Your task to perform on an android device: add a label to a message in the gmail app Image 0: 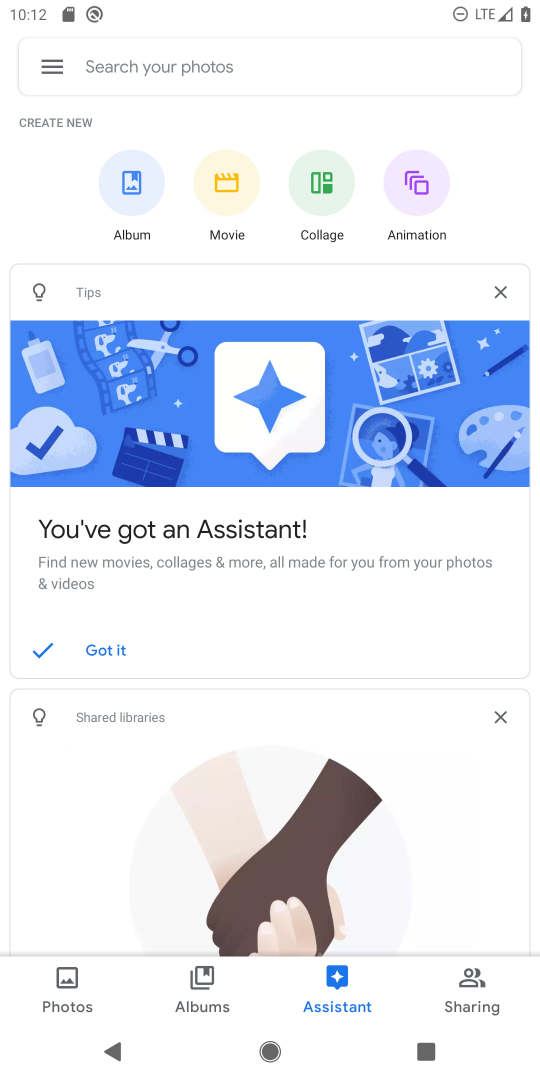
Step 0: press home button
Your task to perform on an android device: add a label to a message in the gmail app Image 1: 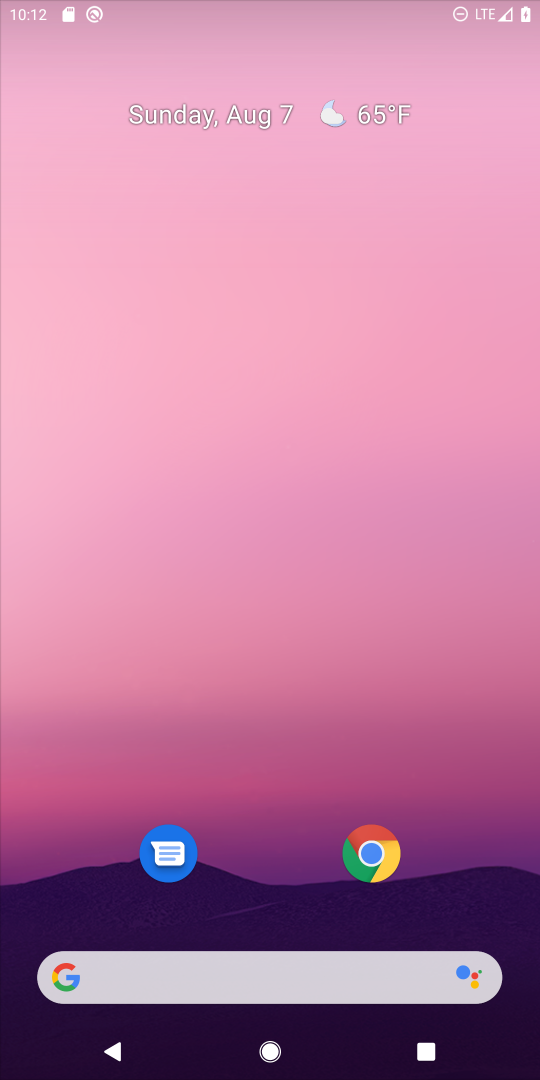
Step 1: drag from (202, 979) to (292, 268)
Your task to perform on an android device: add a label to a message in the gmail app Image 2: 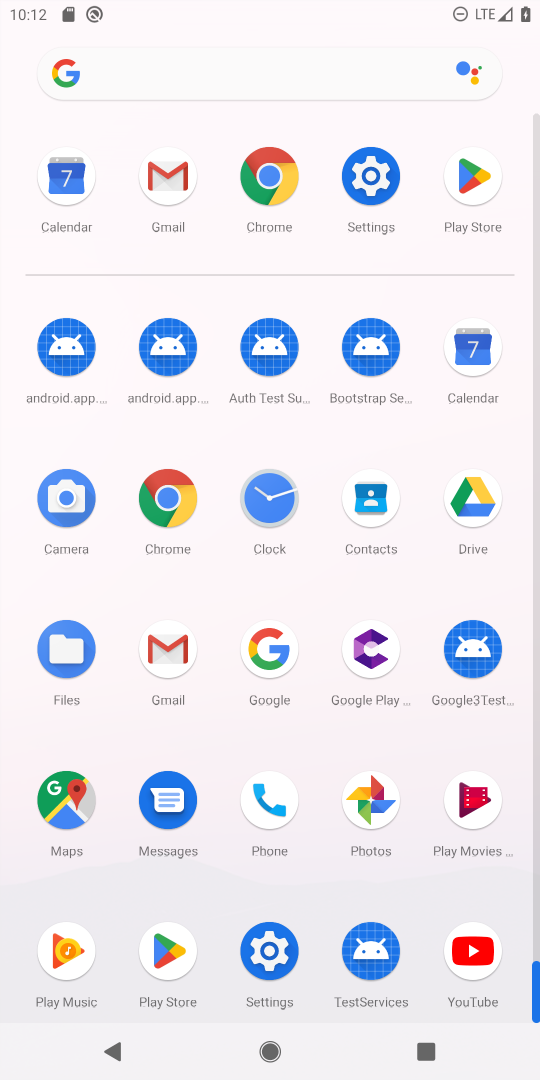
Step 2: click (158, 168)
Your task to perform on an android device: add a label to a message in the gmail app Image 3: 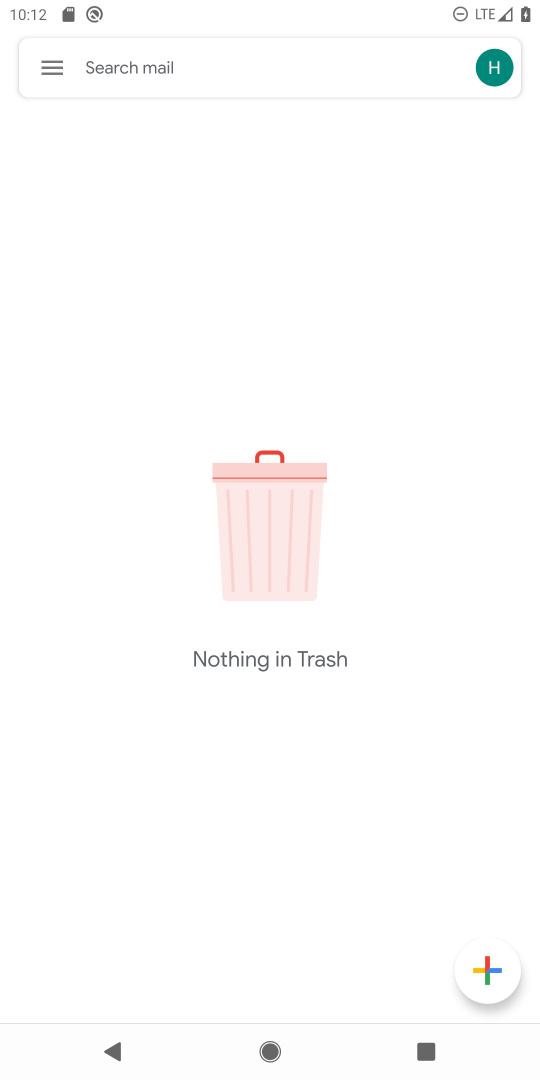
Step 3: click (56, 67)
Your task to perform on an android device: add a label to a message in the gmail app Image 4: 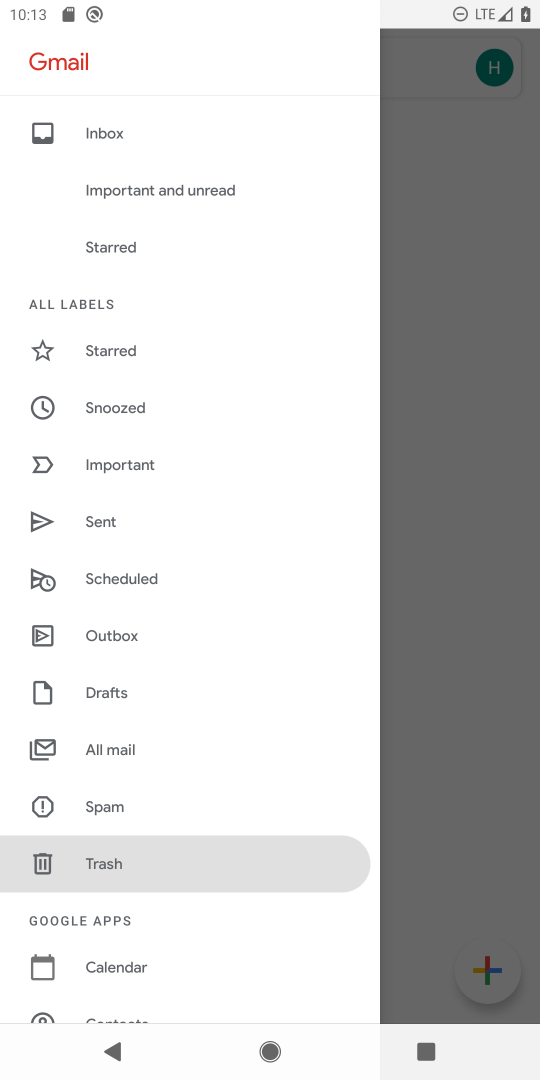
Step 4: drag from (169, 790) to (288, 222)
Your task to perform on an android device: add a label to a message in the gmail app Image 5: 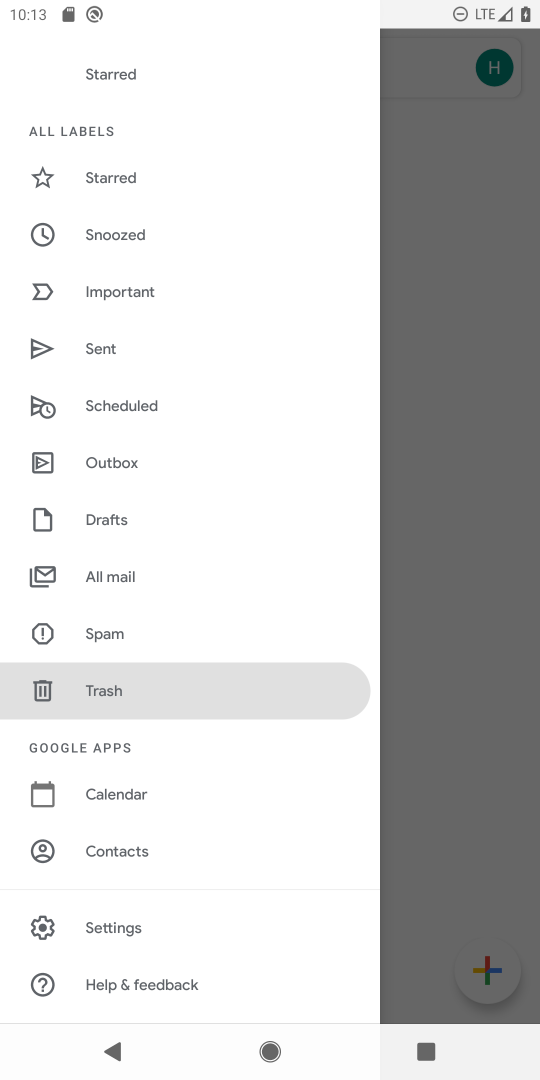
Step 5: drag from (168, 311) to (153, 916)
Your task to perform on an android device: add a label to a message in the gmail app Image 6: 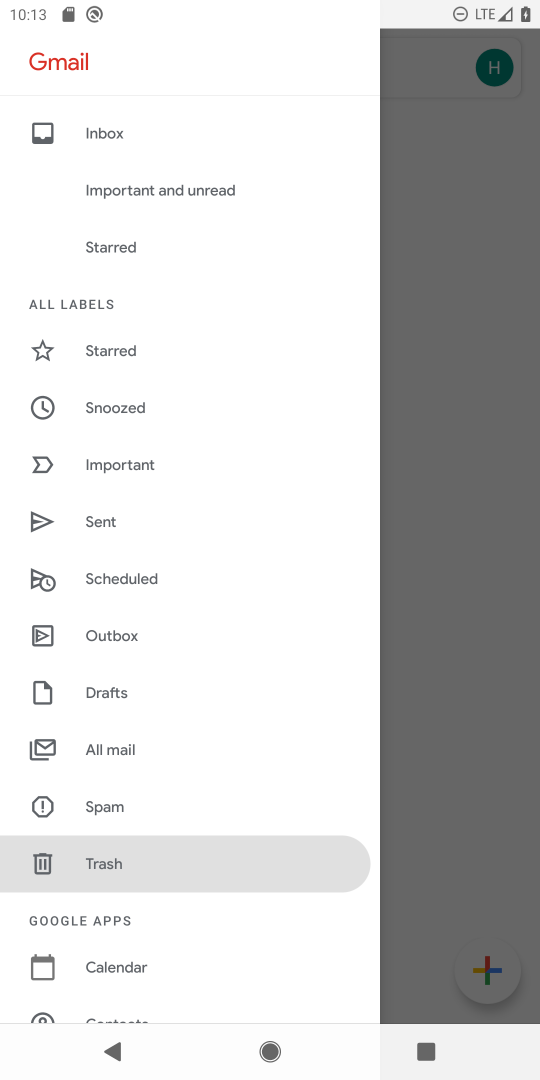
Step 6: click (129, 747)
Your task to perform on an android device: add a label to a message in the gmail app Image 7: 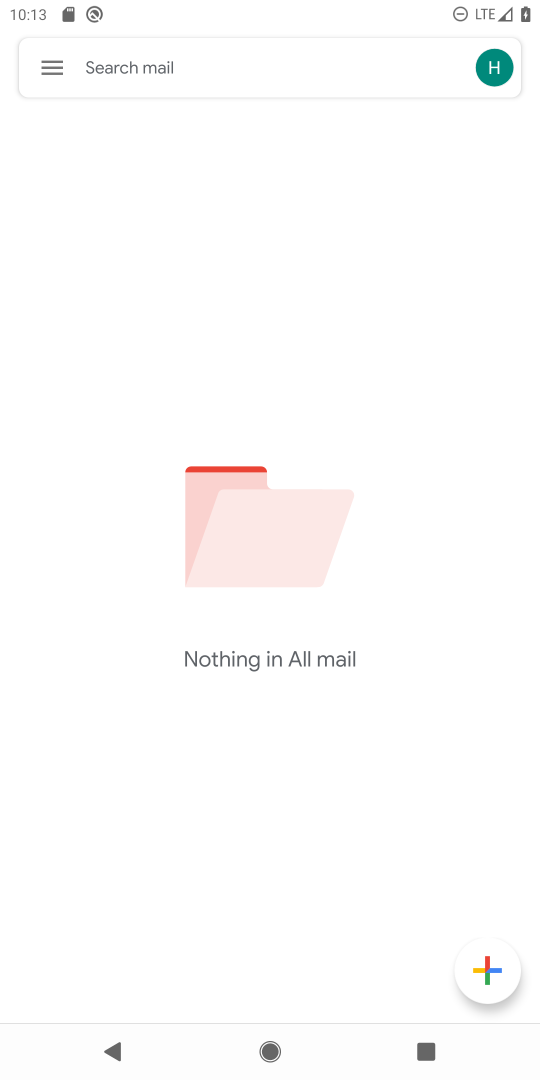
Step 7: click (51, 73)
Your task to perform on an android device: add a label to a message in the gmail app Image 8: 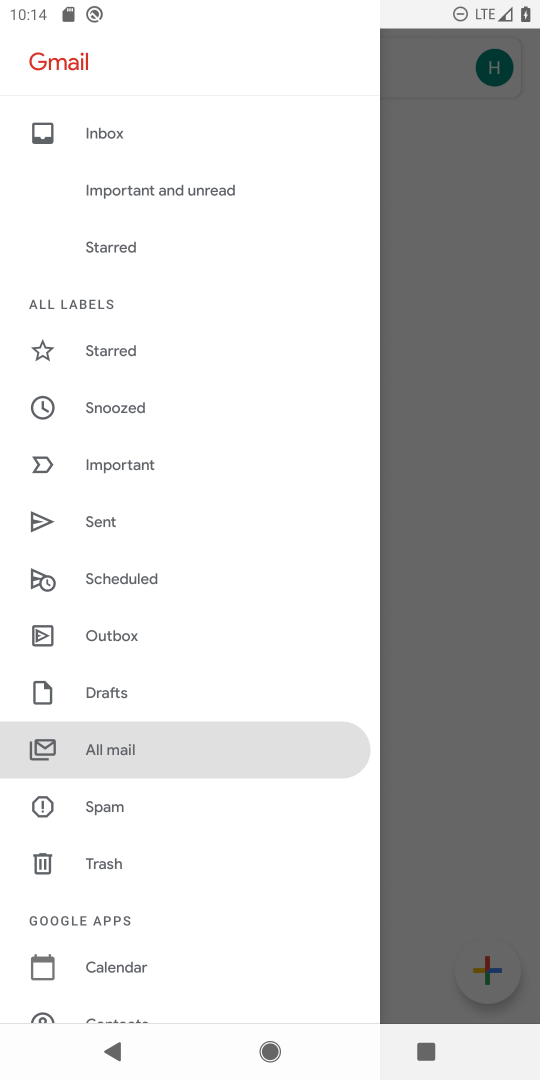
Step 8: drag from (161, 940) to (245, 186)
Your task to perform on an android device: add a label to a message in the gmail app Image 9: 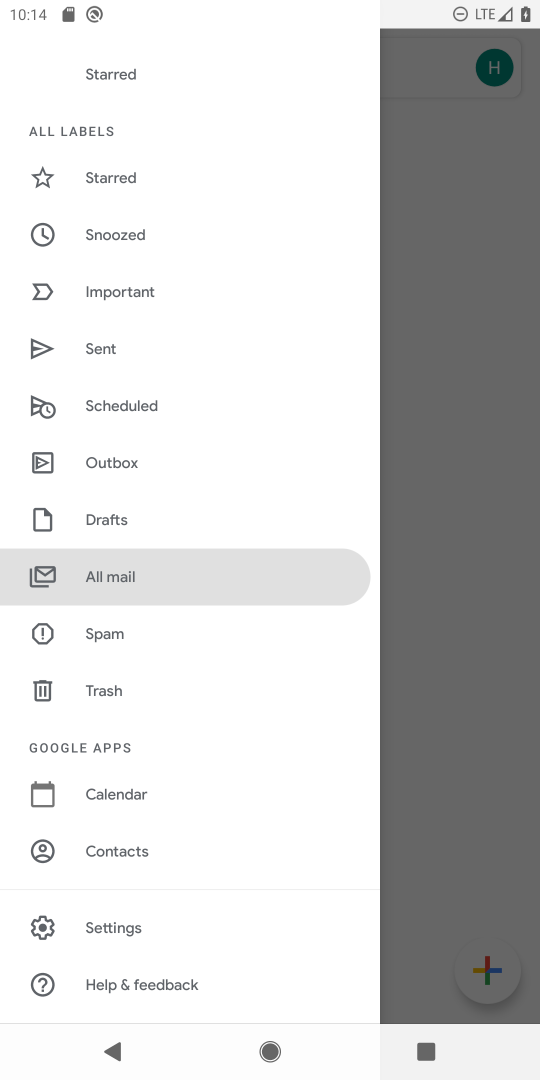
Step 9: drag from (169, 244) to (169, 783)
Your task to perform on an android device: add a label to a message in the gmail app Image 10: 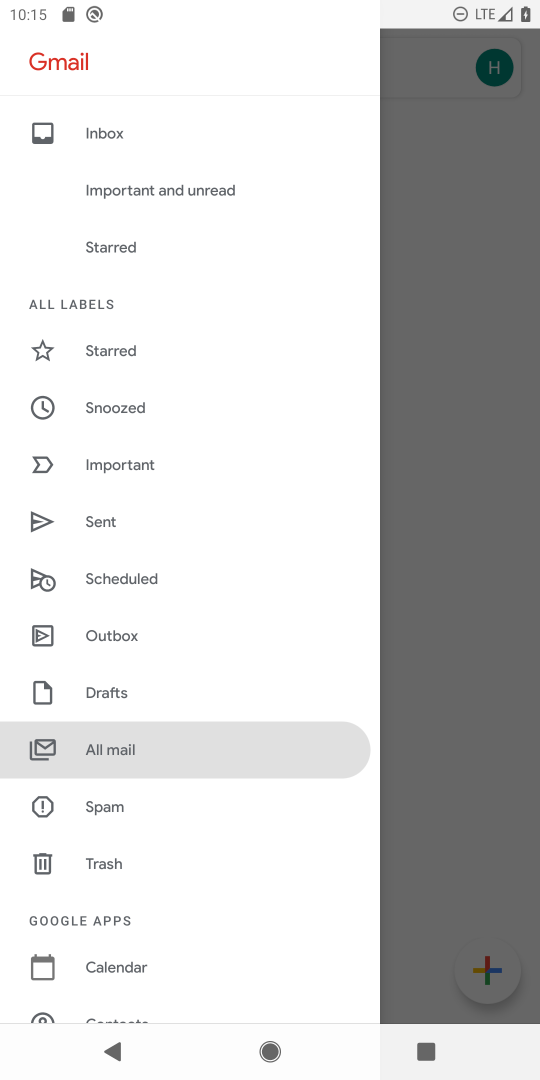
Step 10: drag from (168, 870) to (305, 176)
Your task to perform on an android device: add a label to a message in the gmail app Image 11: 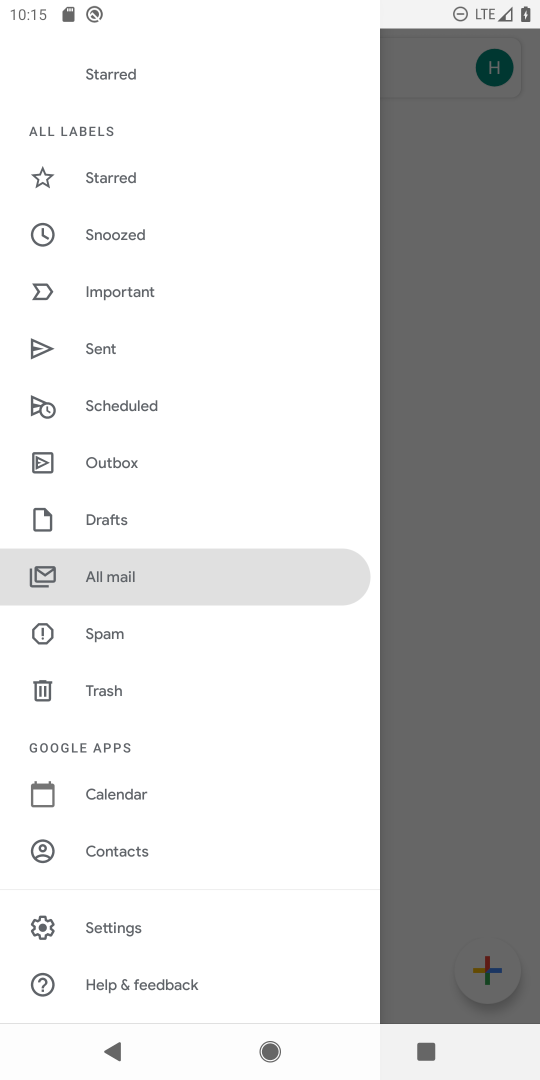
Step 11: click (108, 566)
Your task to perform on an android device: add a label to a message in the gmail app Image 12: 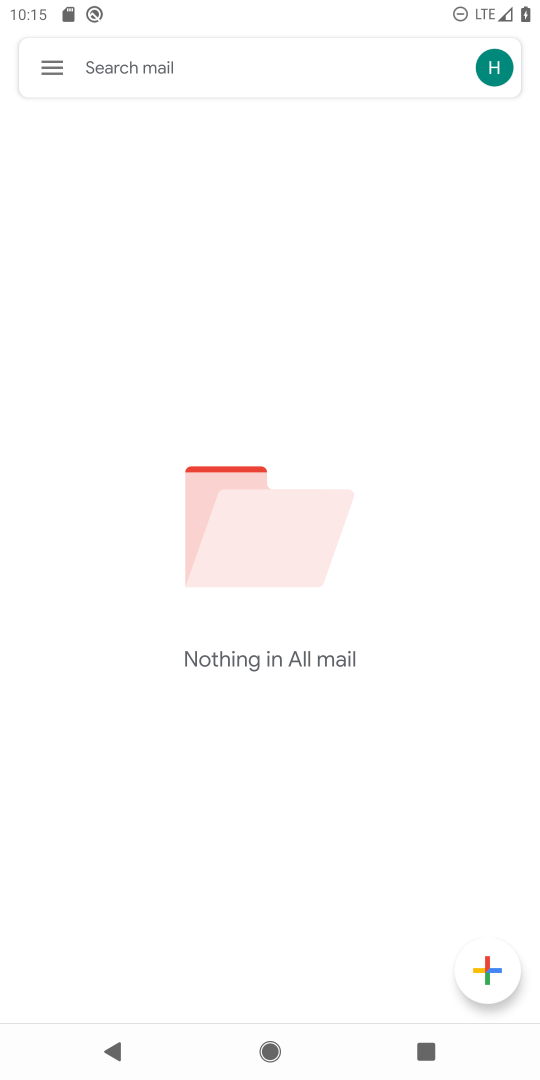
Step 12: task complete